Your task to perform on an android device: Go to Google Image 0: 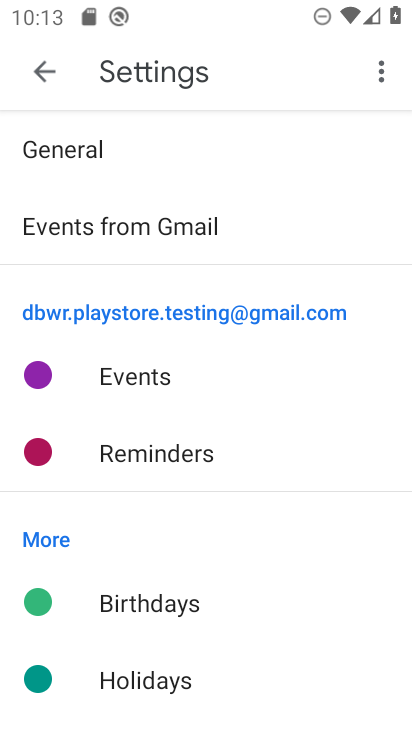
Step 0: press home button
Your task to perform on an android device: Go to Google Image 1: 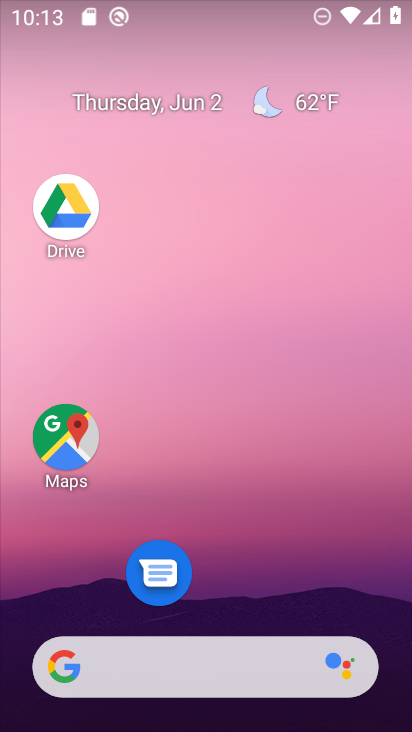
Step 1: drag from (228, 643) to (210, 76)
Your task to perform on an android device: Go to Google Image 2: 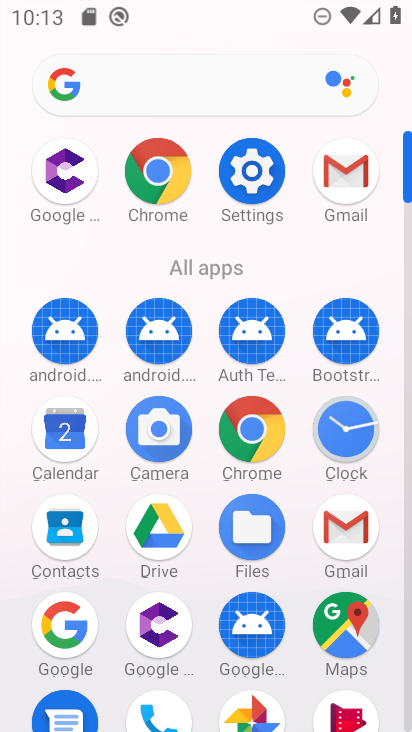
Step 2: click (76, 638)
Your task to perform on an android device: Go to Google Image 3: 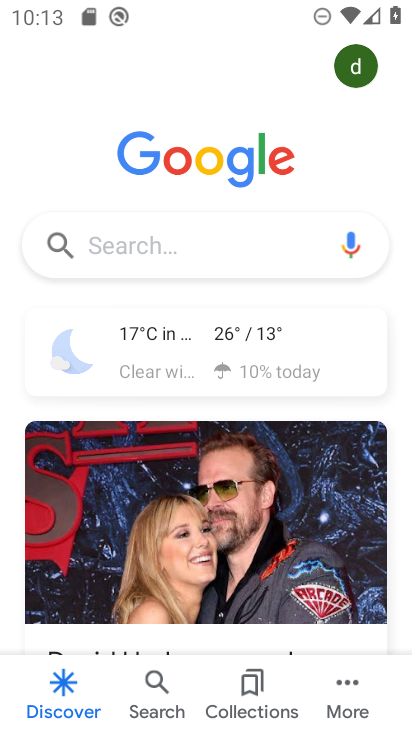
Step 3: task complete